Your task to perform on an android device: turn off smart reply in the gmail app Image 0: 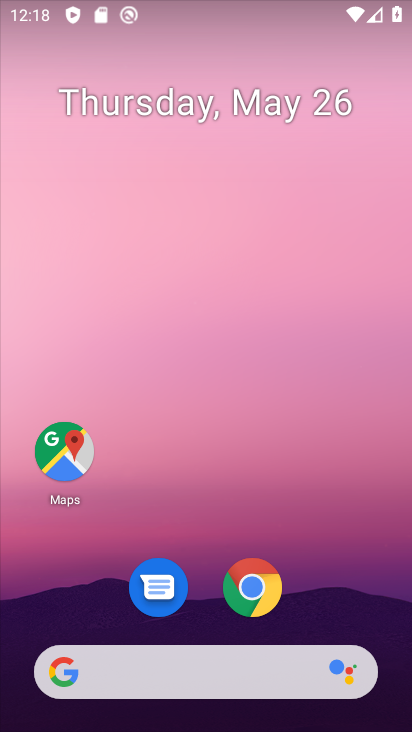
Step 0: drag from (367, 562) to (357, 230)
Your task to perform on an android device: turn off smart reply in the gmail app Image 1: 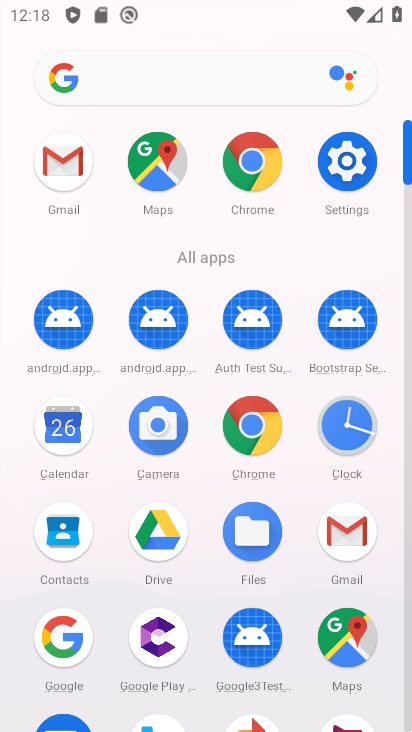
Step 1: click (356, 538)
Your task to perform on an android device: turn off smart reply in the gmail app Image 2: 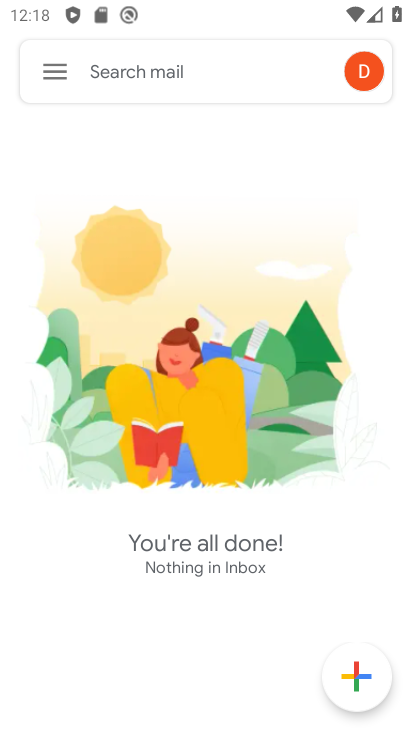
Step 2: click (58, 82)
Your task to perform on an android device: turn off smart reply in the gmail app Image 3: 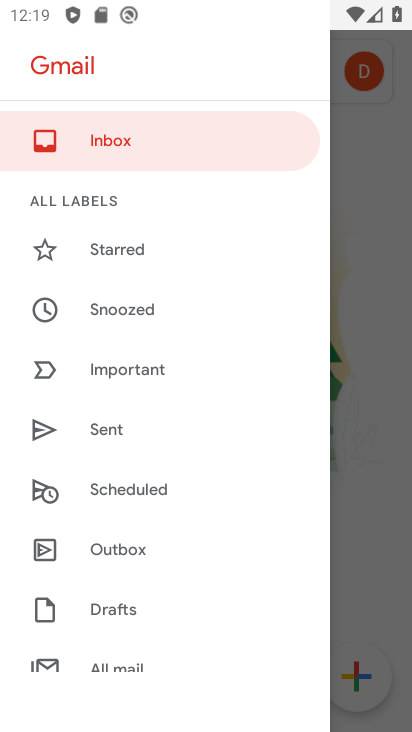
Step 3: drag from (246, 428) to (250, 373)
Your task to perform on an android device: turn off smart reply in the gmail app Image 4: 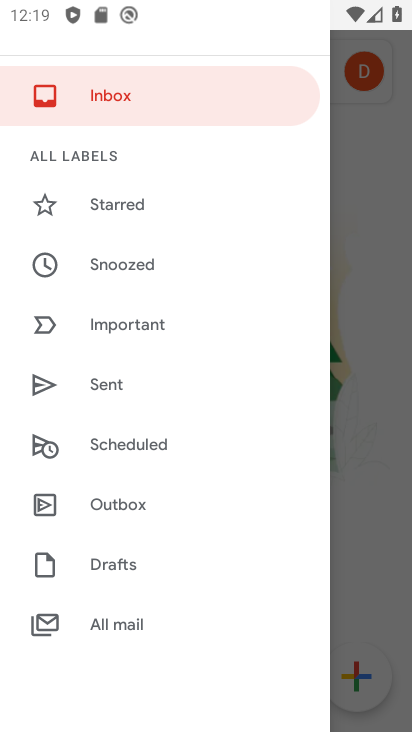
Step 4: drag from (263, 493) to (265, 413)
Your task to perform on an android device: turn off smart reply in the gmail app Image 5: 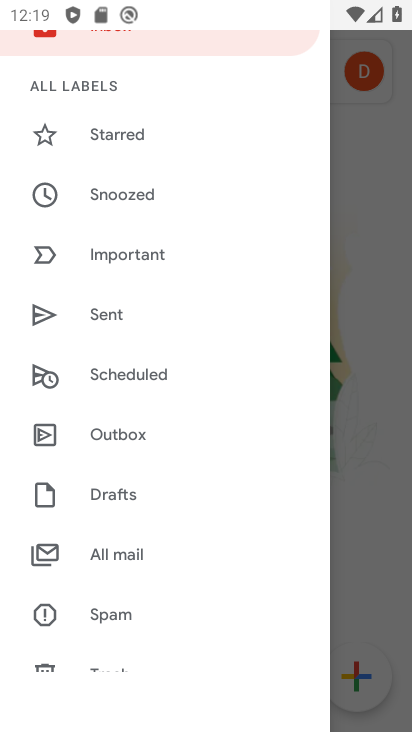
Step 5: drag from (276, 519) to (284, 409)
Your task to perform on an android device: turn off smart reply in the gmail app Image 6: 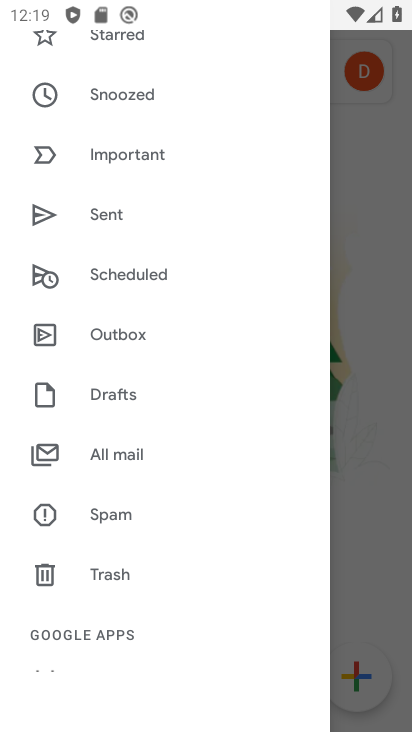
Step 6: drag from (267, 496) to (267, 425)
Your task to perform on an android device: turn off smart reply in the gmail app Image 7: 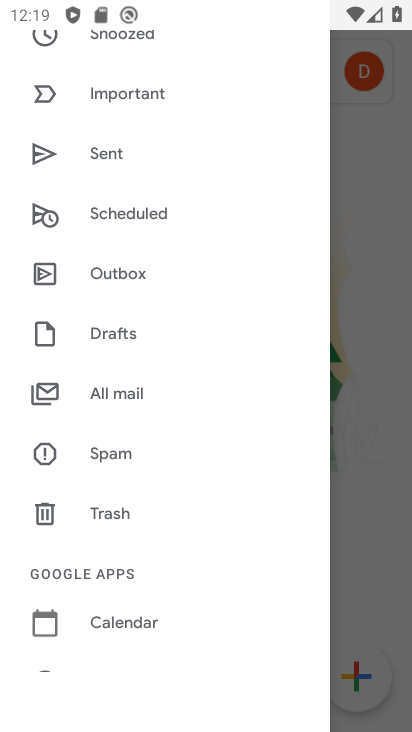
Step 7: drag from (251, 541) to (257, 438)
Your task to perform on an android device: turn off smart reply in the gmail app Image 8: 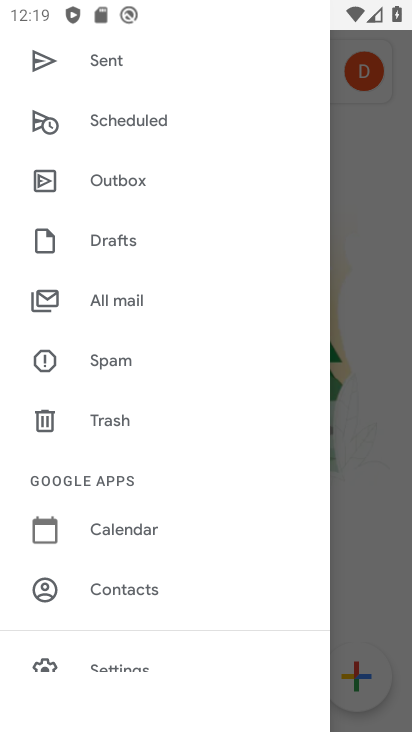
Step 8: drag from (240, 542) to (245, 462)
Your task to perform on an android device: turn off smart reply in the gmail app Image 9: 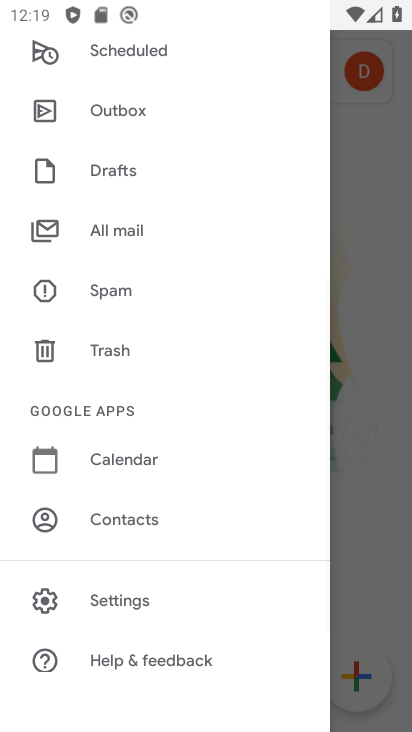
Step 9: drag from (254, 593) to (267, 480)
Your task to perform on an android device: turn off smart reply in the gmail app Image 10: 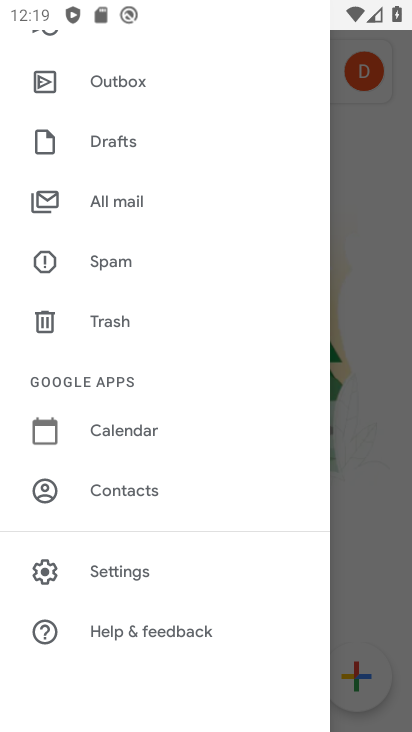
Step 10: click (163, 578)
Your task to perform on an android device: turn off smart reply in the gmail app Image 11: 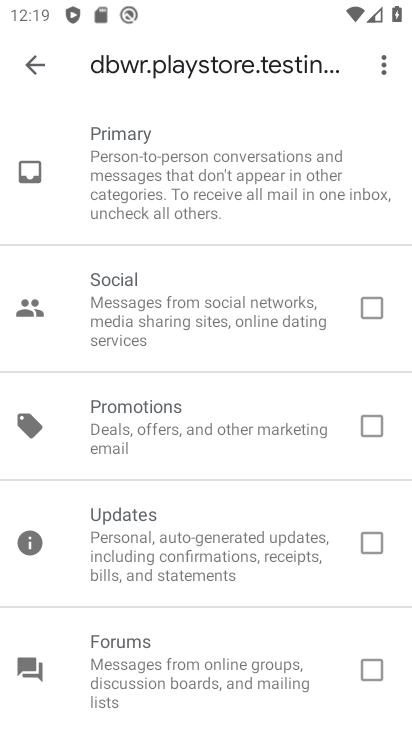
Step 11: click (42, 71)
Your task to perform on an android device: turn off smart reply in the gmail app Image 12: 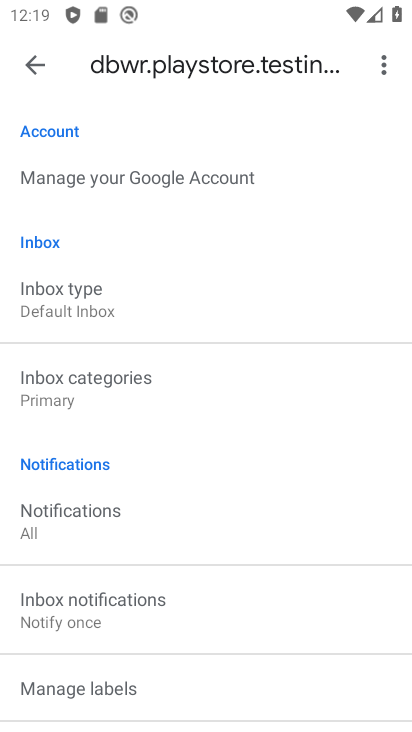
Step 12: drag from (262, 413) to (259, 350)
Your task to perform on an android device: turn off smart reply in the gmail app Image 13: 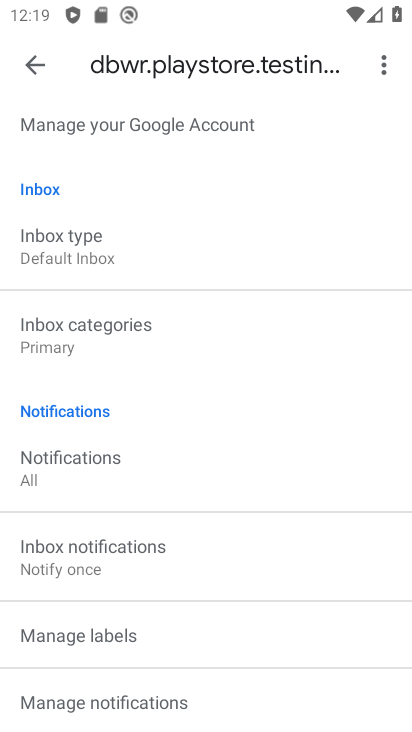
Step 13: drag from (260, 440) to (262, 371)
Your task to perform on an android device: turn off smart reply in the gmail app Image 14: 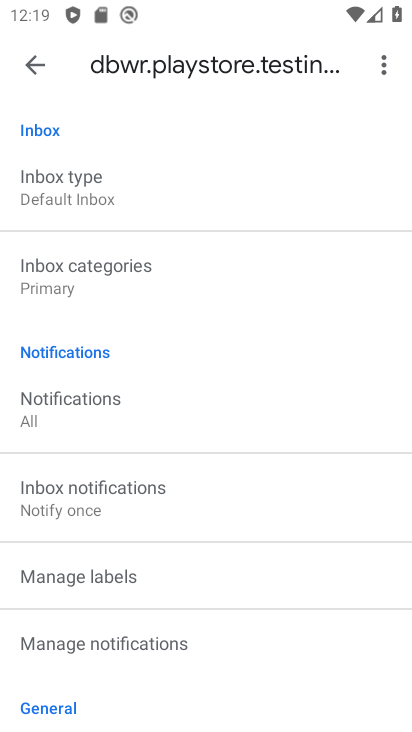
Step 14: drag from (272, 471) to (279, 406)
Your task to perform on an android device: turn off smart reply in the gmail app Image 15: 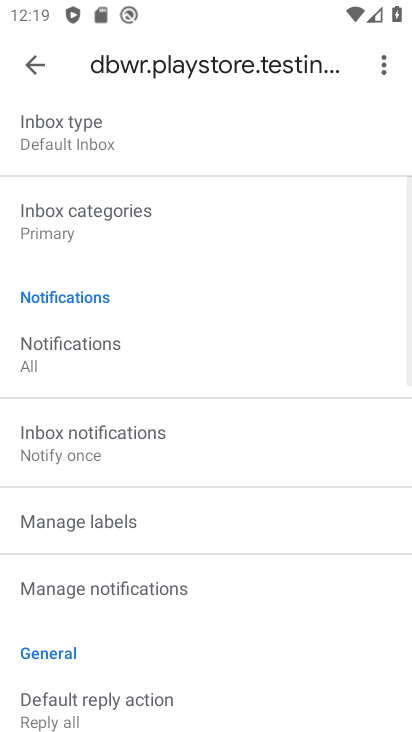
Step 15: drag from (271, 466) to (278, 399)
Your task to perform on an android device: turn off smart reply in the gmail app Image 16: 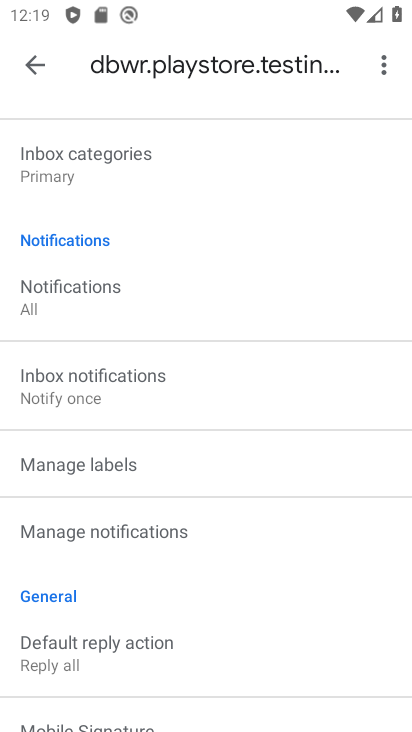
Step 16: drag from (284, 476) to (290, 413)
Your task to perform on an android device: turn off smart reply in the gmail app Image 17: 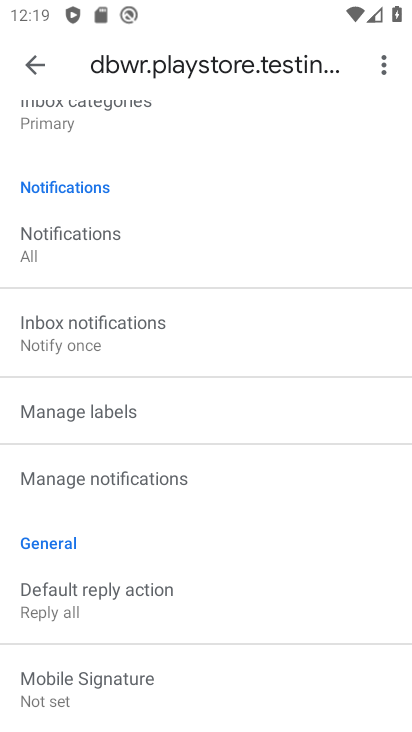
Step 17: drag from (274, 496) to (264, 431)
Your task to perform on an android device: turn off smart reply in the gmail app Image 18: 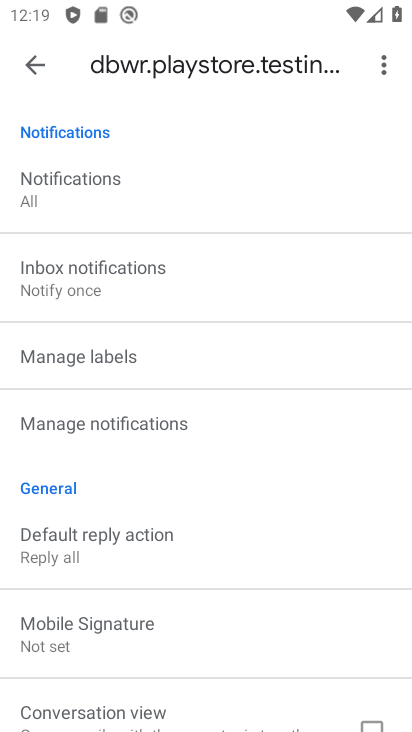
Step 18: drag from (251, 505) to (252, 453)
Your task to perform on an android device: turn off smart reply in the gmail app Image 19: 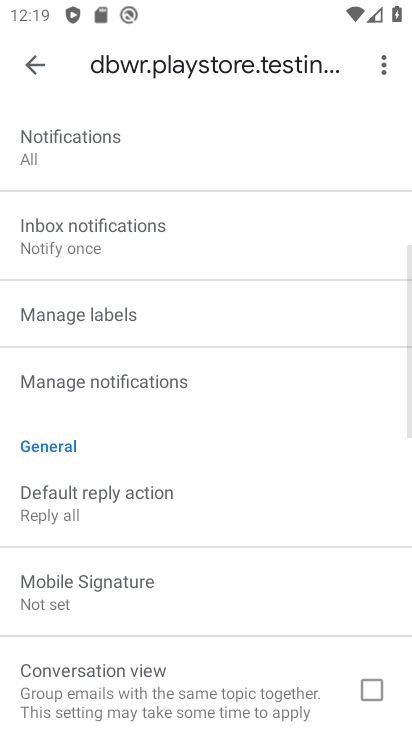
Step 19: drag from (244, 504) to (255, 449)
Your task to perform on an android device: turn off smart reply in the gmail app Image 20: 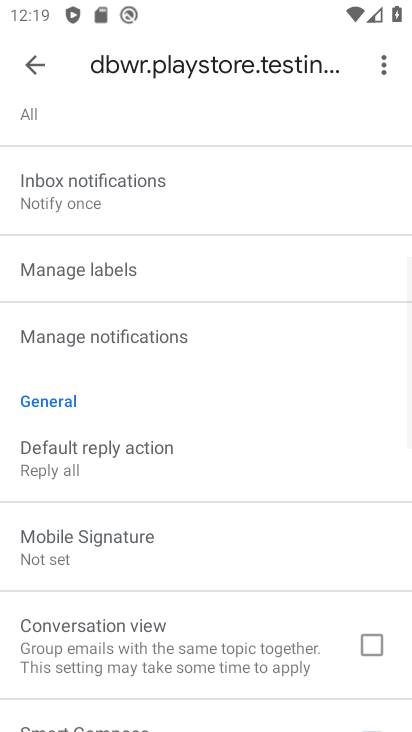
Step 20: drag from (253, 506) to (262, 445)
Your task to perform on an android device: turn off smart reply in the gmail app Image 21: 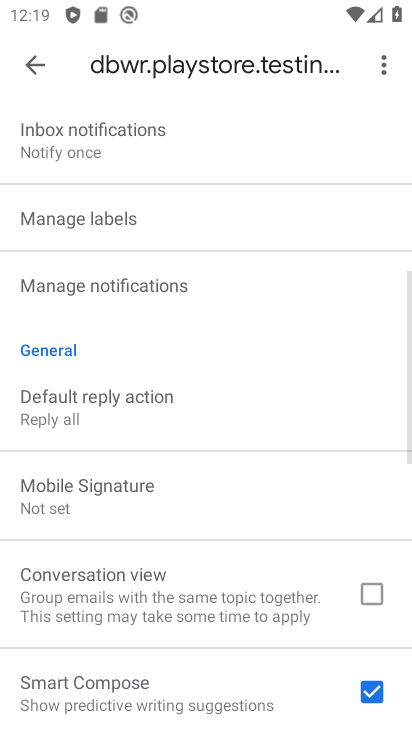
Step 21: drag from (261, 509) to (262, 451)
Your task to perform on an android device: turn off smart reply in the gmail app Image 22: 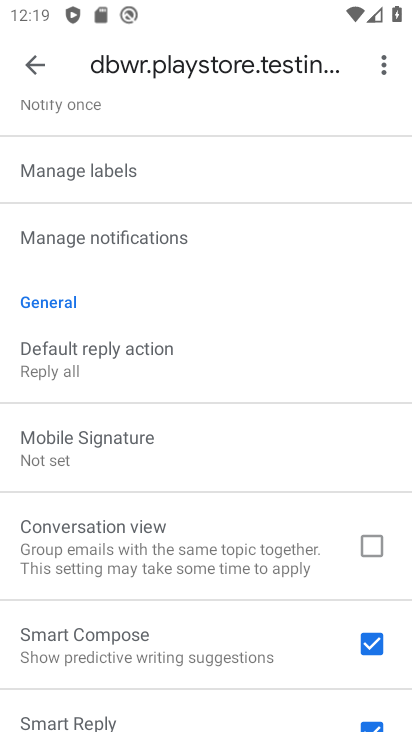
Step 22: drag from (261, 509) to (266, 443)
Your task to perform on an android device: turn off smart reply in the gmail app Image 23: 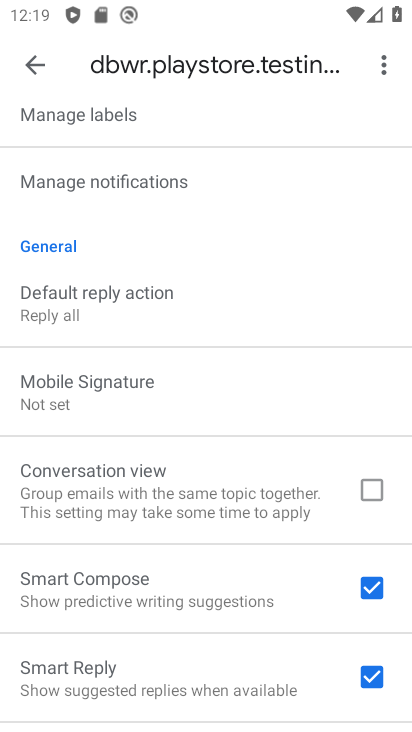
Step 23: drag from (256, 496) to (260, 452)
Your task to perform on an android device: turn off smart reply in the gmail app Image 24: 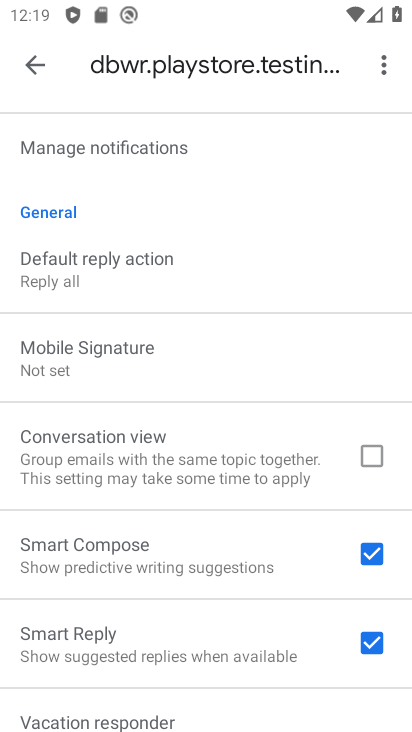
Step 24: click (250, 506)
Your task to perform on an android device: turn off smart reply in the gmail app Image 25: 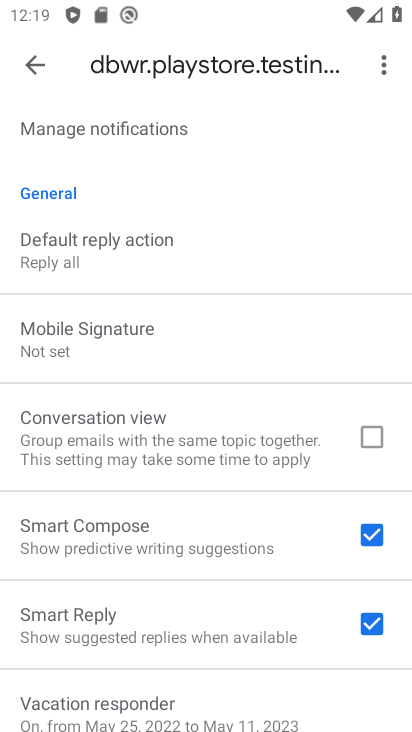
Step 25: drag from (258, 530) to (269, 479)
Your task to perform on an android device: turn off smart reply in the gmail app Image 26: 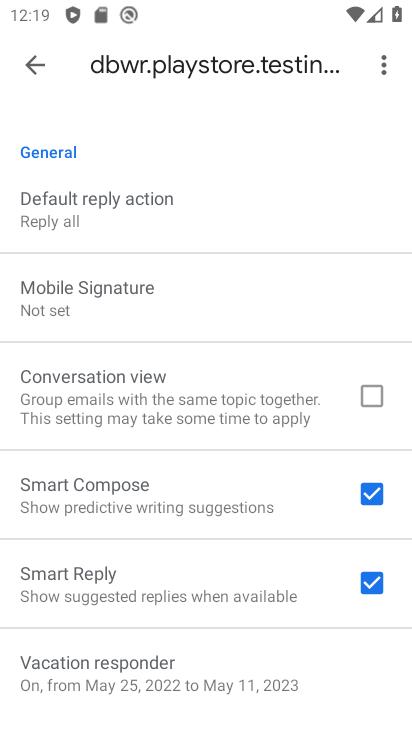
Step 26: click (360, 590)
Your task to perform on an android device: turn off smart reply in the gmail app Image 27: 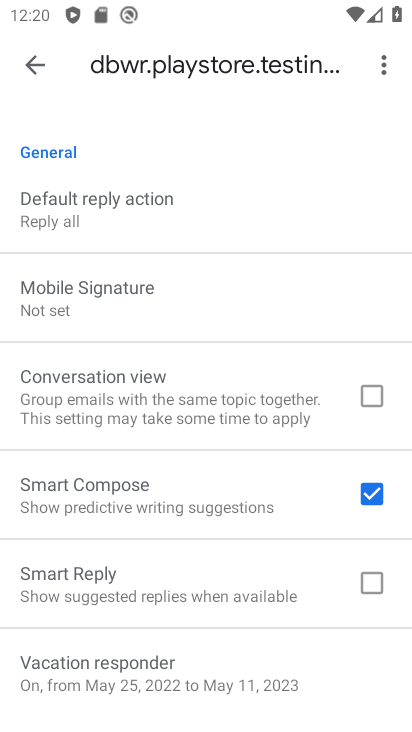
Step 27: task complete